Your task to perform on an android device: Go to network settings Image 0: 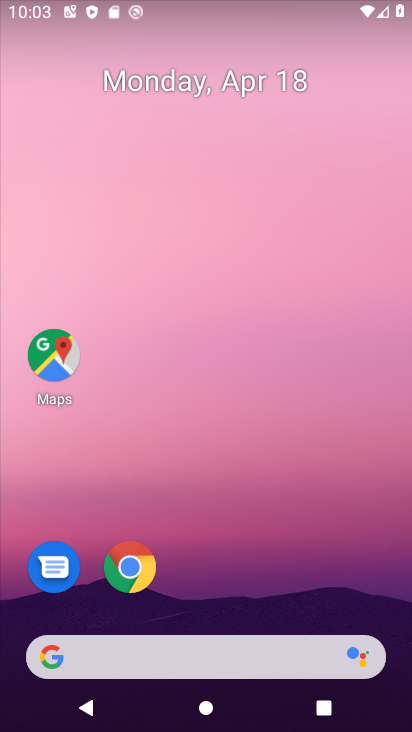
Step 0: drag from (324, 535) to (308, 127)
Your task to perform on an android device: Go to network settings Image 1: 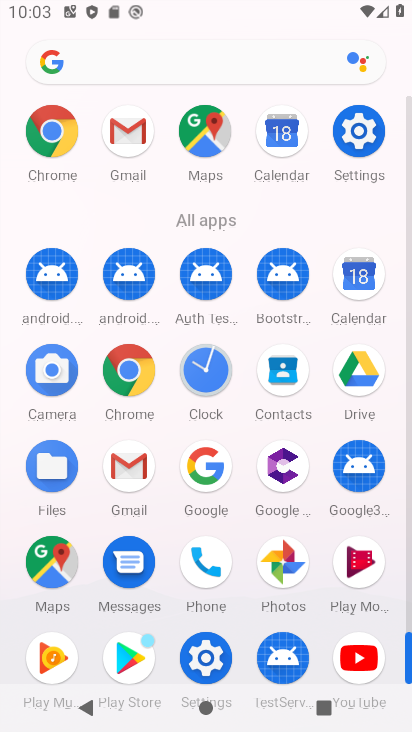
Step 1: click (371, 119)
Your task to perform on an android device: Go to network settings Image 2: 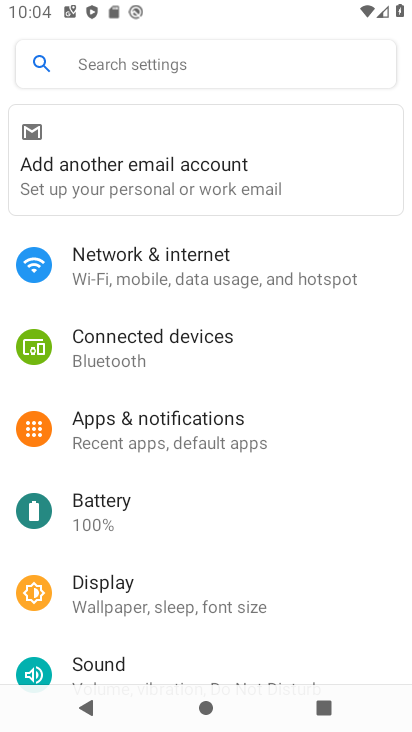
Step 2: click (207, 274)
Your task to perform on an android device: Go to network settings Image 3: 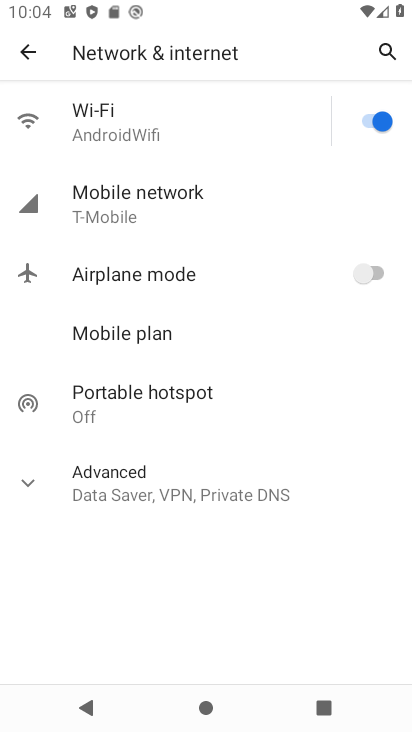
Step 3: task complete